Your task to perform on an android device: Go to ESPN.com Image 0: 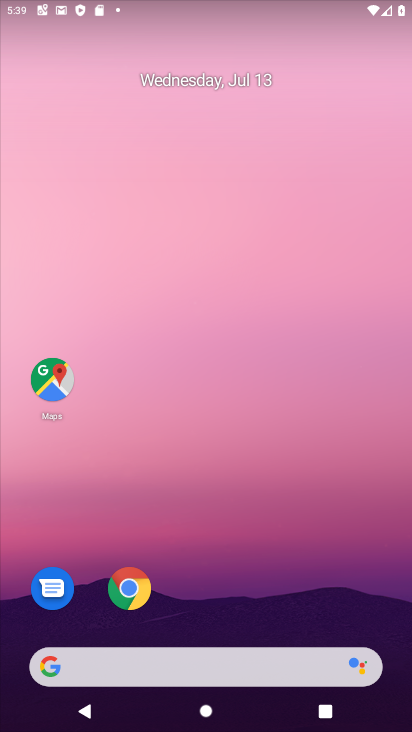
Step 0: drag from (217, 476) to (168, 40)
Your task to perform on an android device: Go to ESPN.com Image 1: 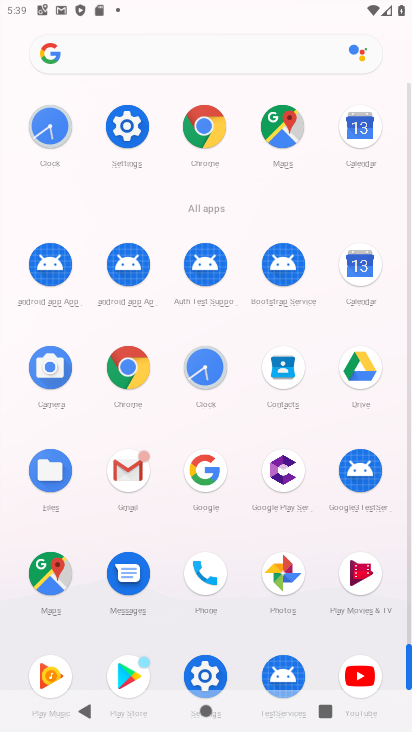
Step 1: click (126, 129)
Your task to perform on an android device: Go to ESPN.com Image 2: 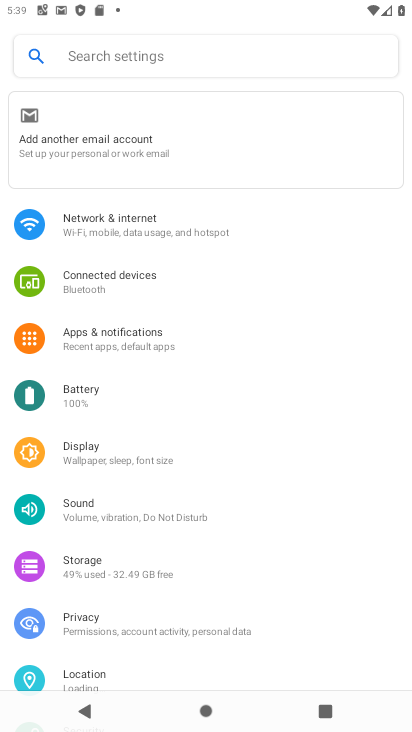
Step 2: press back button
Your task to perform on an android device: Go to ESPN.com Image 3: 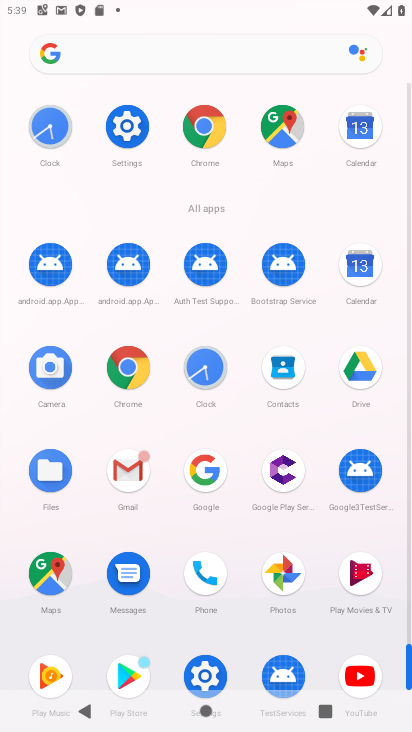
Step 3: click (211, 129)
Your task to perform on an android device: Go to ESPN.com Image 4: 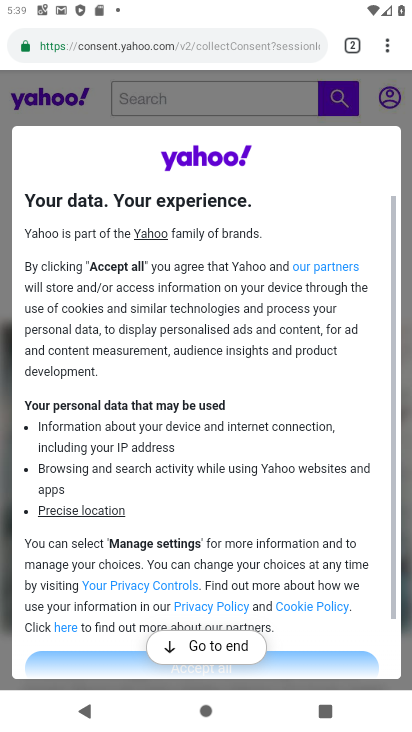
Step 4: click (184, 35)
Your task to perform on an android device: Go to ESPN.com Image 5: 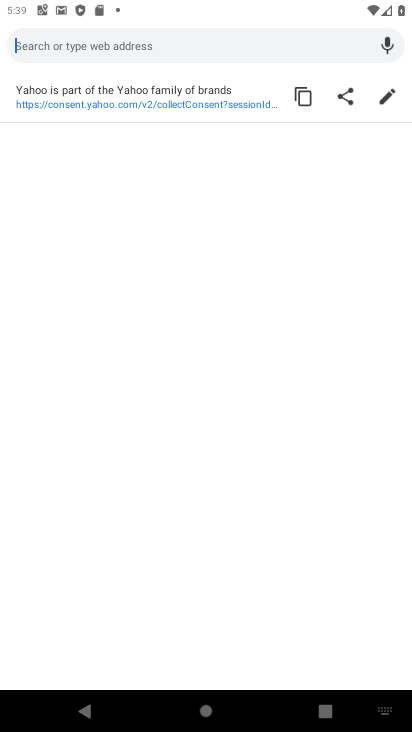
Step 5: type "www.espn.com"
Your task to perform on an android device: Go to ESPN.com Image 6: 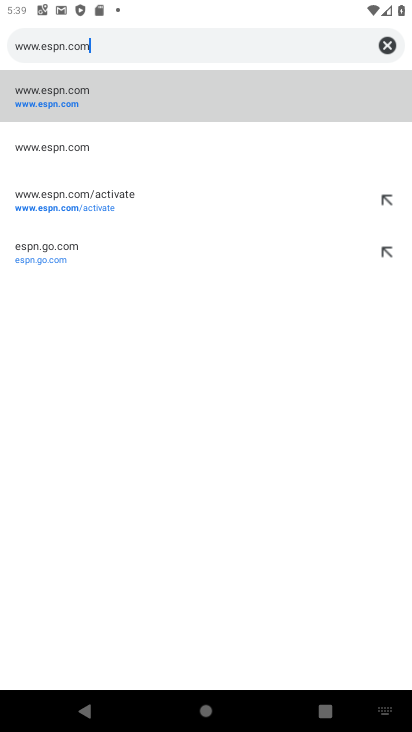
Step 6: click (42, 94)
Your task to perform on an android device: Go to ESPN.com Image 7: 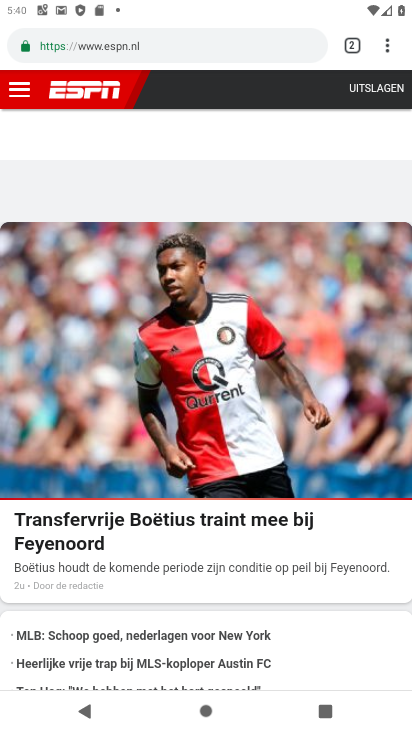
Step 7: task complete